Your task to perform on an android device: Go to eBay Image 0: 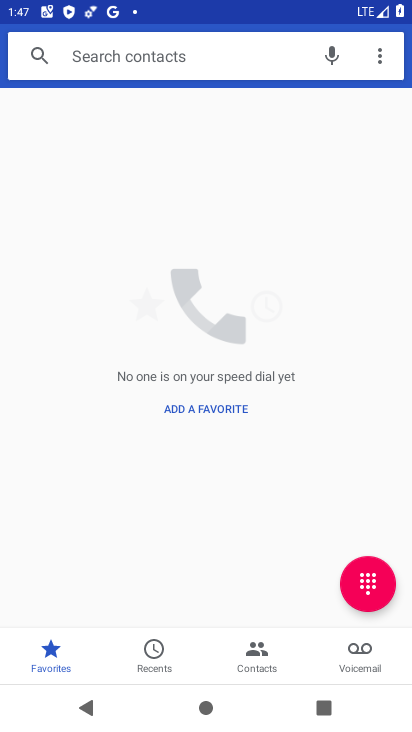
Step 0: press home button
Your task to perform on an android device: Go to eBay Image 1: 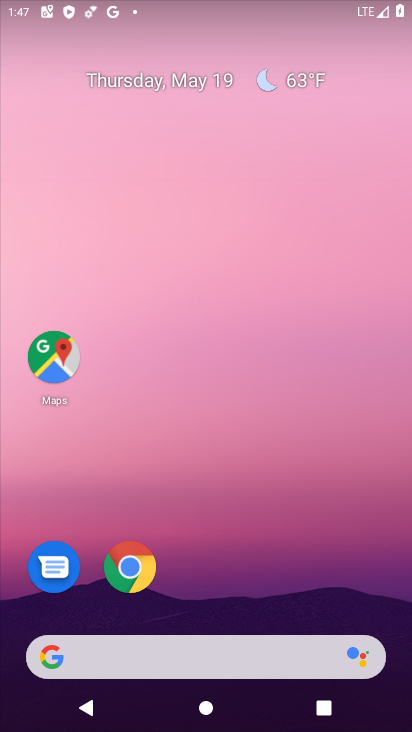
Step 1: drag from (211, 552) to (165, 59)
Your task to perform on an android device: Go to eBay Image 2: 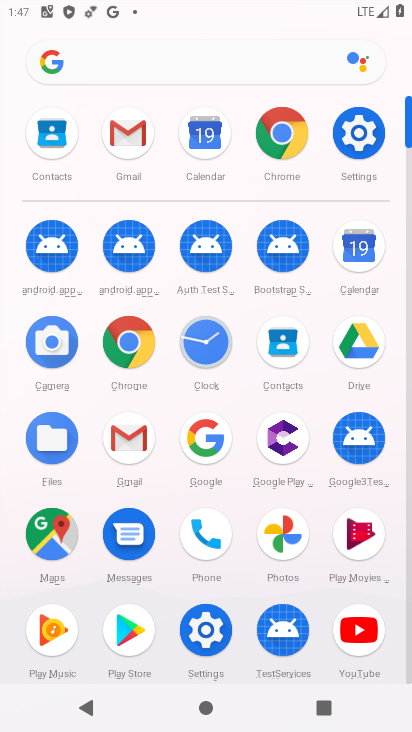
Step 2: click (284, 151)
Your task to perform on an android device: Go to eBay Image 3: 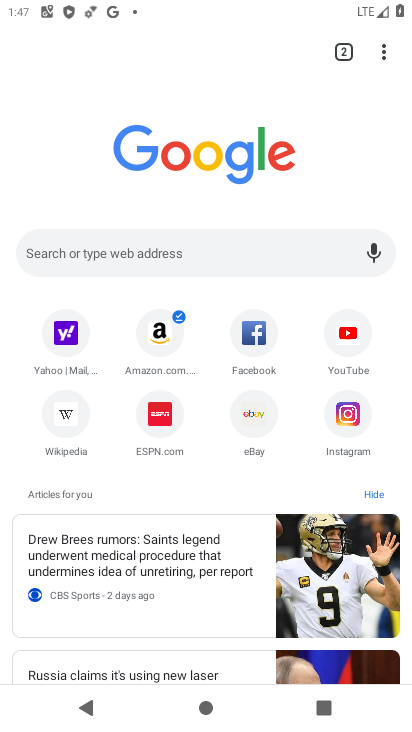
Step 3: click (261, 428)
Your task to perform on an android device: Go to eBay Image 4: 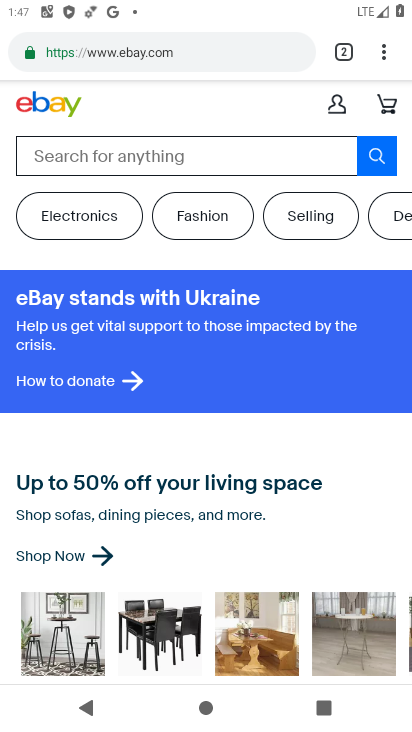
Step 4: task complete